Your task to perform on an android device: toggle pop-ups in chrome Image 0: 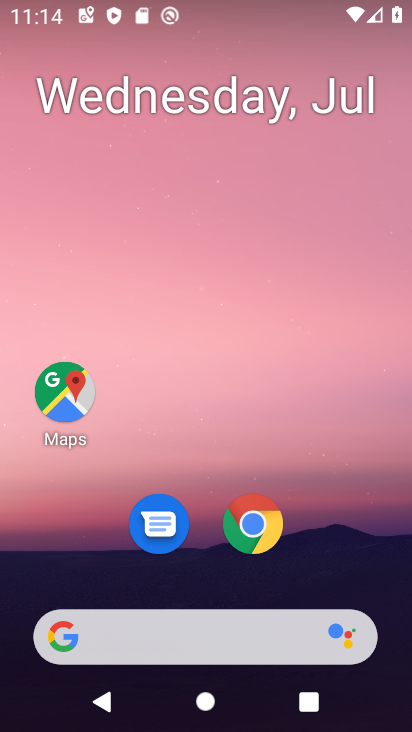
Step 0: click (253, 521)
Your task to perform on an android device: toggle pop-ups in chrome Image 1: 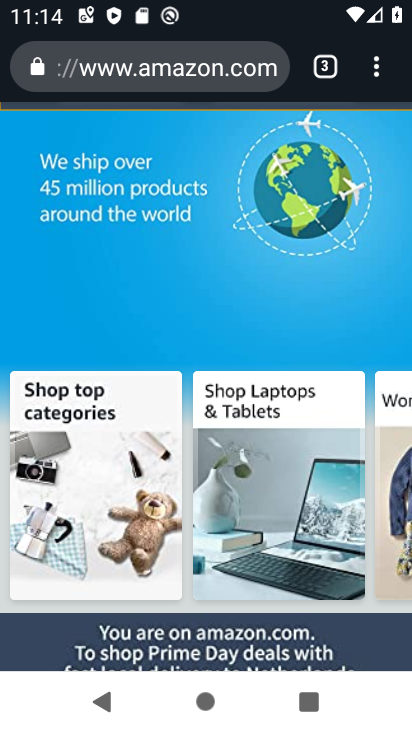
Step 1: drag from (381, 67) to (209, 521)
Your task to perform on an android device: toggle pop-ups in chrome Image 2: 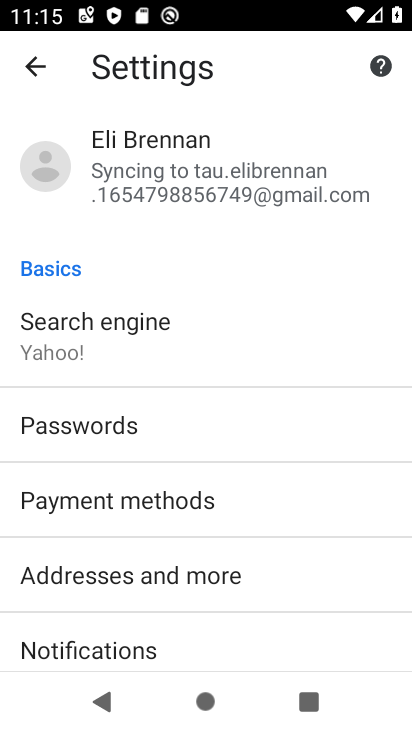
Step 2: drag from (231, 649) to (235, 425)
Your task to perform on an android device: toggle pop-ups in chrome Image 3: 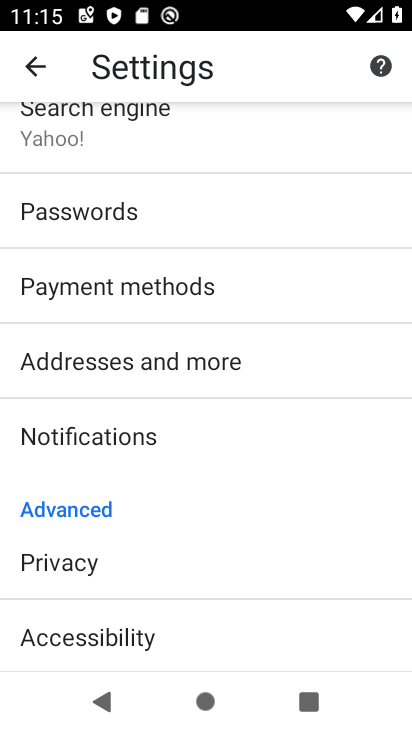
Step 3: drag from (224, 616) to (305, 253)
Your task to perform on an android device: toggle pop-ups in chrome Image 4: 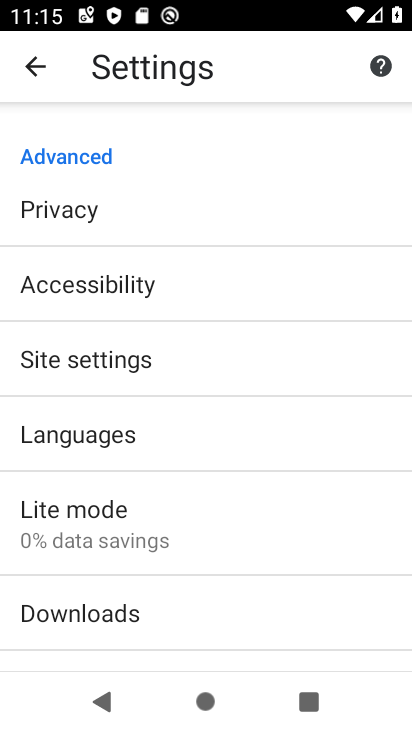
Step 4: click (103, 372)
Your task to perform on an android device: toggle pop-ups in chrome Image 5: 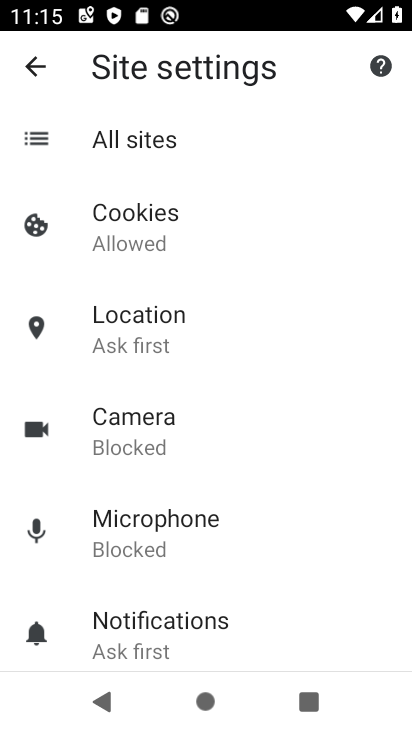
Step 5: drag from (261, 589) to (350, 212)
Your task to perform on an android device: toggle pop-ups in chrome Image 6: 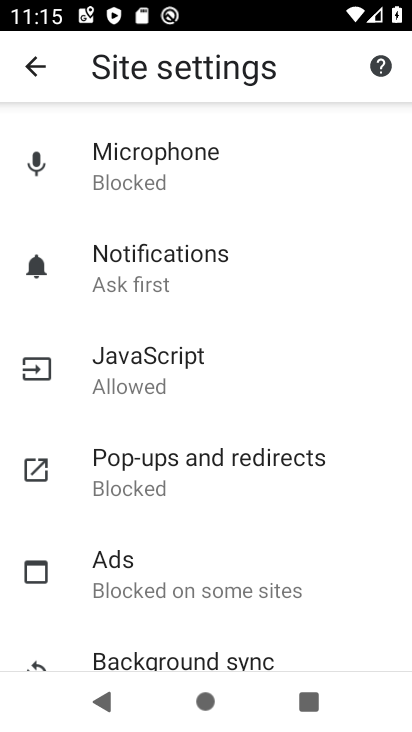
Step 6: click (203, 468)
Your task to perform on an android device: toggle pop-ups in chrome Image 7: 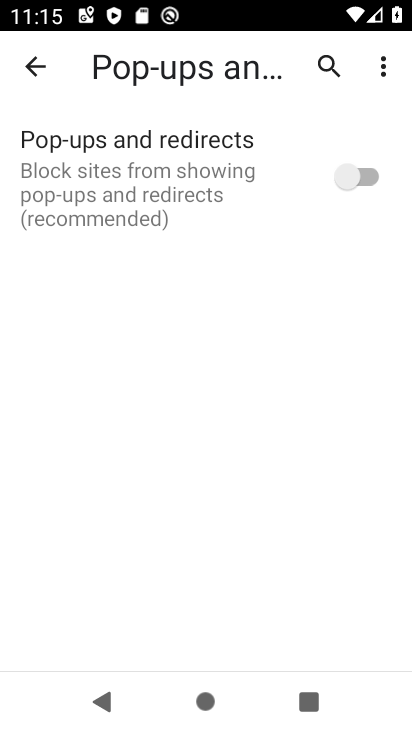
Step 7: click (360, 172)
Your task to perform on an android device: toggle pop-ups in chrome Image 8: 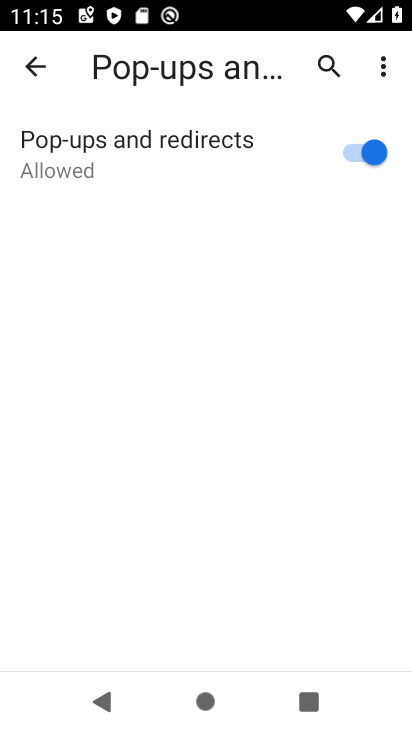
Step 8: task complete